Your task to perform on an android device: turn off picture-in-picture Image 0: 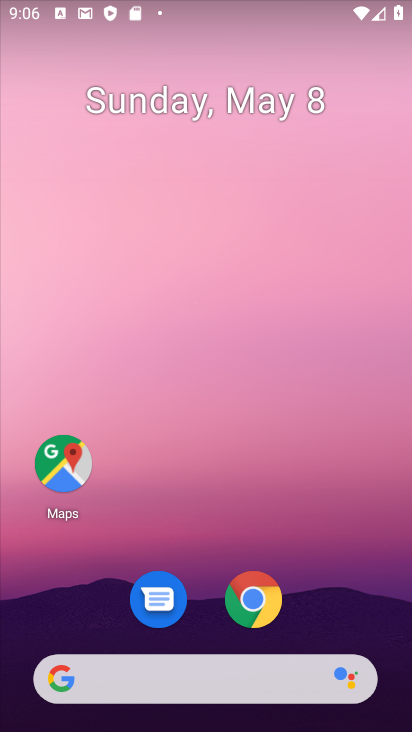
Step 0: drag from (266, 614) to (305, 2)
Your task to perform on an android device: turn off picture-in-picture Image 1: 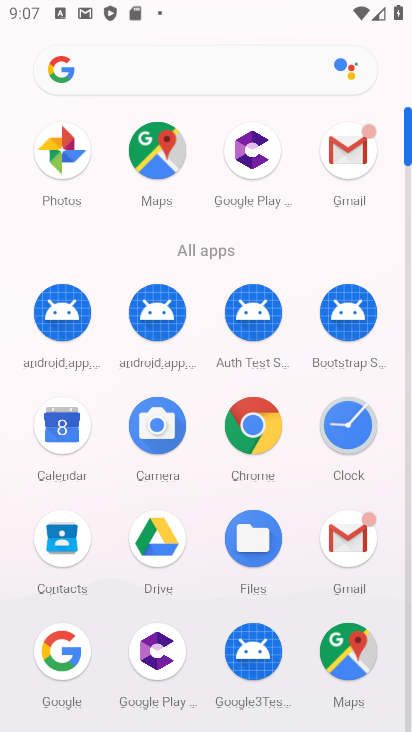
Step 1: drag from (216, 533) to (228, 17)
Your task to perform on an android device: turn off picture-in-picture Image 2: 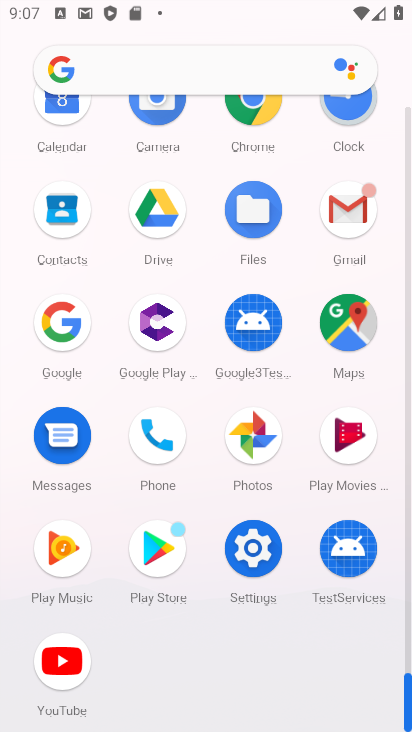
Step 2: click (257, 551)
Your task to perform on an android device: turn off picture-in-picture Image 3: 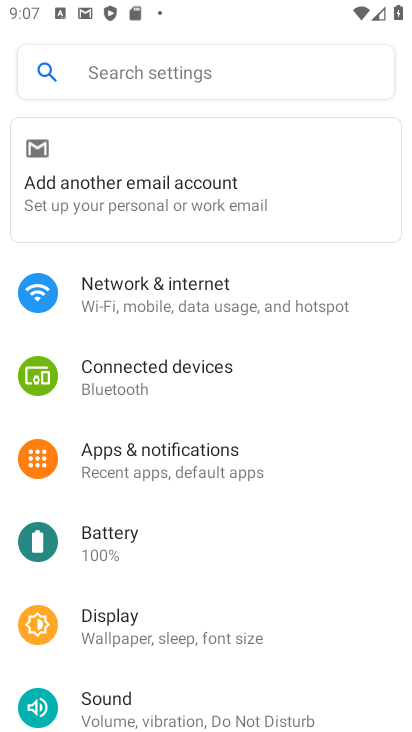
Step 3: click (207, 463)
Your task to perform on an android device: turn off picture-in-picture Image 4: 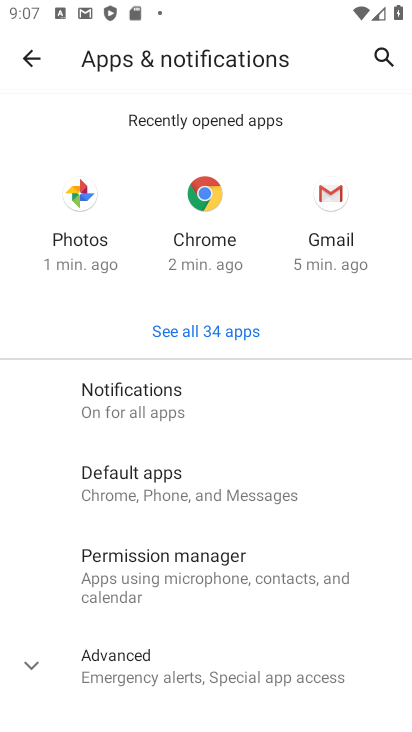
Step 4: click (151, 659)
Your task to perform on an android device: turn off picture-in-picture Image 5: 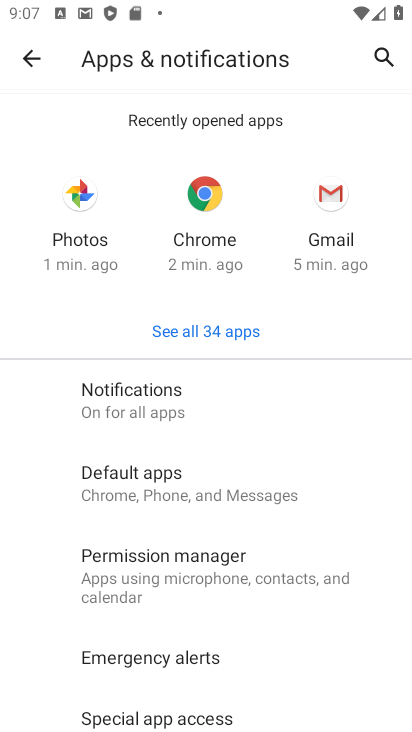
Step 5: drag from (153, 663) to (221, 212)
Your task to perform on an android device: turn off picture-in-picture Image 6: 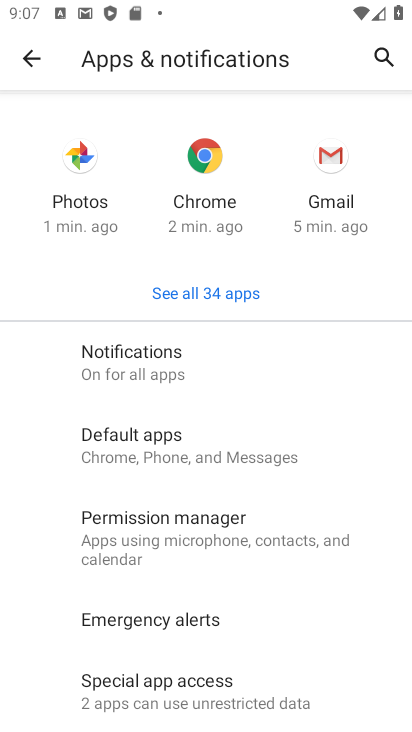
Step 6: drag from (243, 551) to (266, 106)
Your task to perform on an android device: turn off picture-in-picture Image 7: 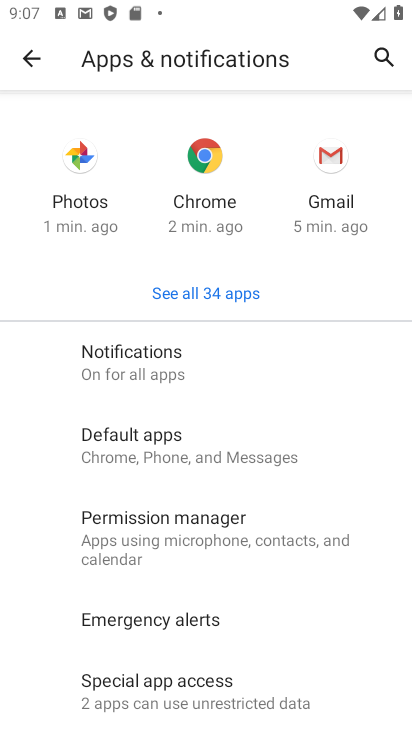
Step 7: click (175, 697)
Your task to perform on an android device: turn off picture-in-picture Image 8: 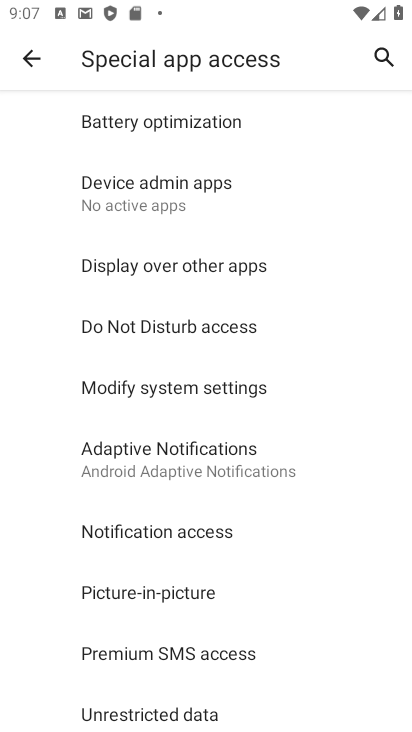
Step 8: click (187, 581)
Your task to perform on an android device: turn off picture-in-picture Image 9: 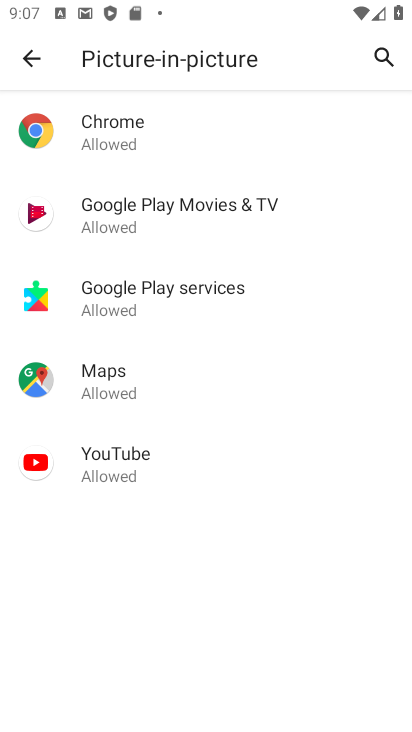
Step 9: click (193, 125)
Your task to perform on an android device: turn off picture-in-picture Image 10: 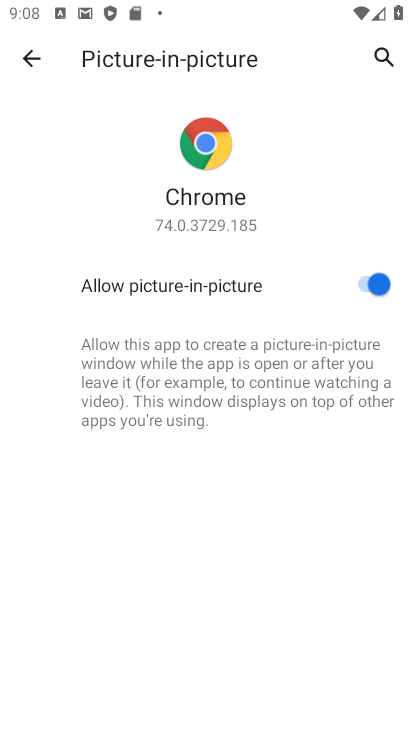
Step 10: click (352, 292)
Your task to perform on an android device: turn off picture-in-picture Image 11: 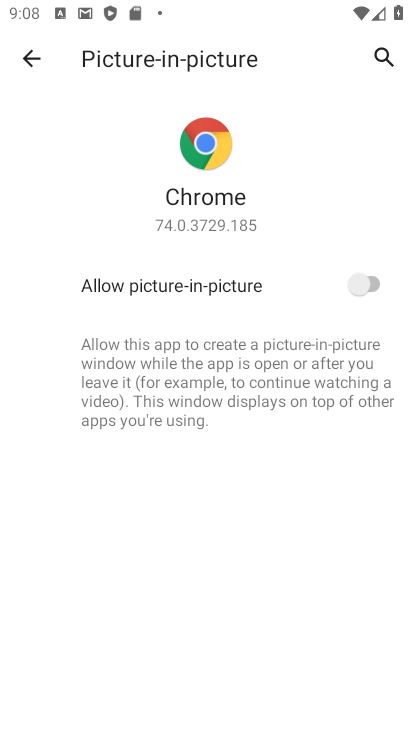
Step 11: task complete